Your task to perform on an android device: Go to notification settings Image 0: 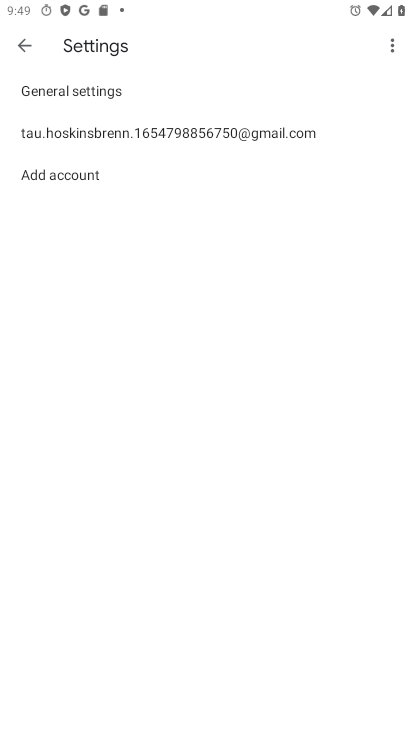
Step 0: press home button
Your task to perform on an android device: Go to notification settings Image 1: 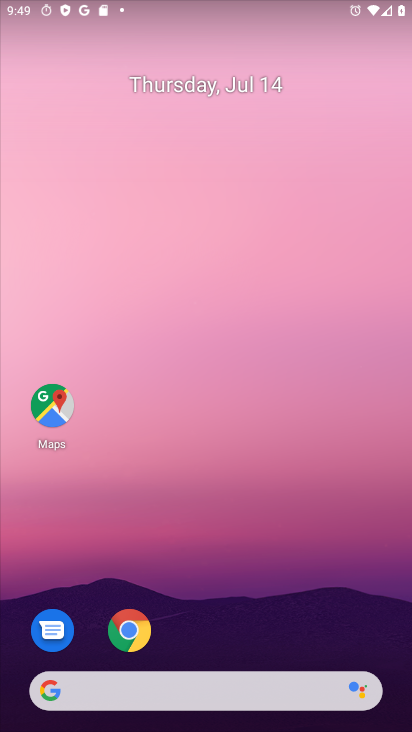
Step 1: drag from (31, 675) to (180, 131)
Your task to perform on an android device: Go to notification settings Image 2: 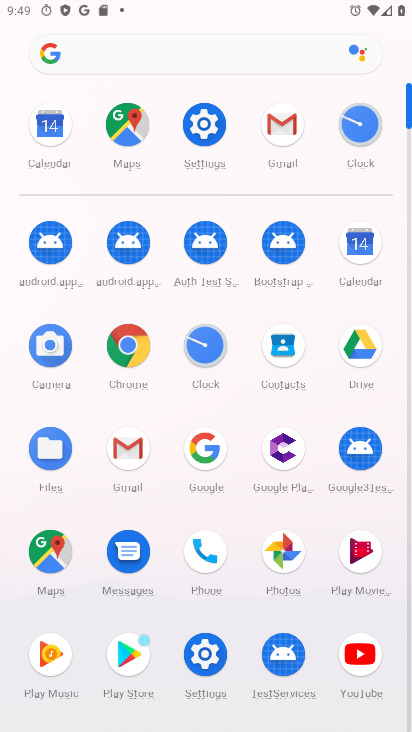
Step 2: click (211, 669)
Your task to perform on an android device: Go to notification settings Image 3: 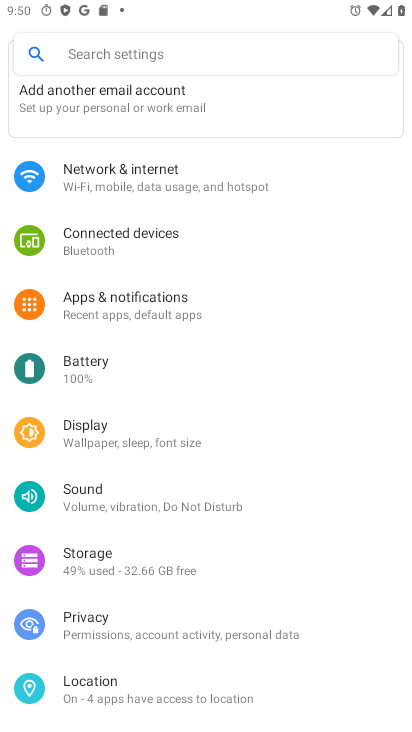
Step 3: click (140, 296)
Your task to perform on an android device: Go to notification settings Image 4: 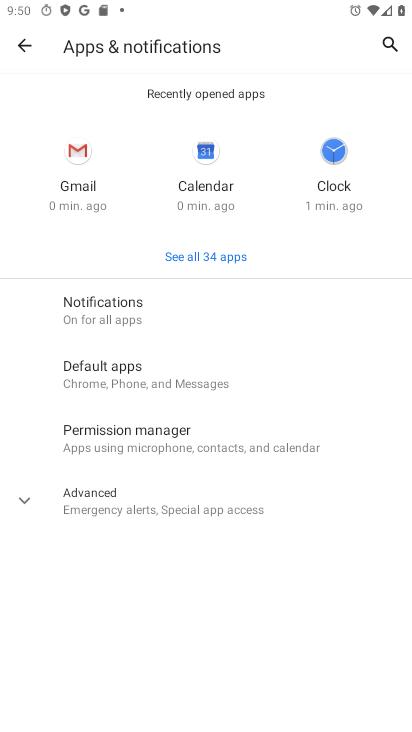
Step 4: click (118, 317)
Your task to perform on an android device: Go to notification settings Image 5: 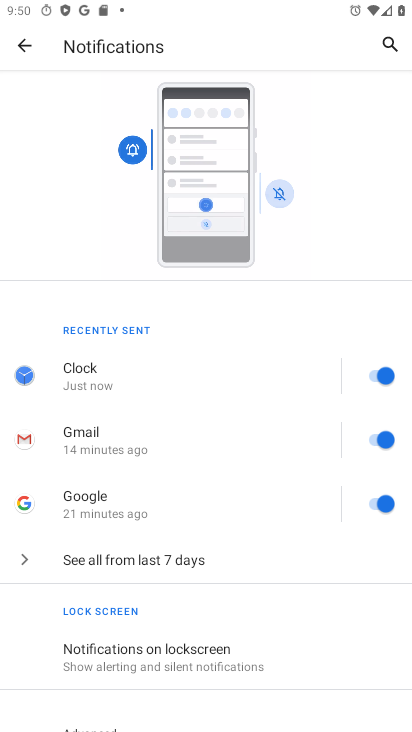
Step 5: task complete